Your task to perform on an android device: What's the weather going to be this weekend? Image 0: 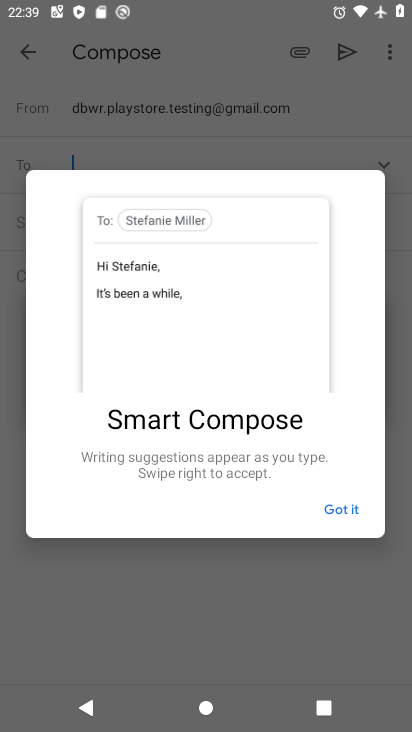
Step 0: press home button
Your task to perform on an android device: What's the weather going to be this weekend? Image 1: 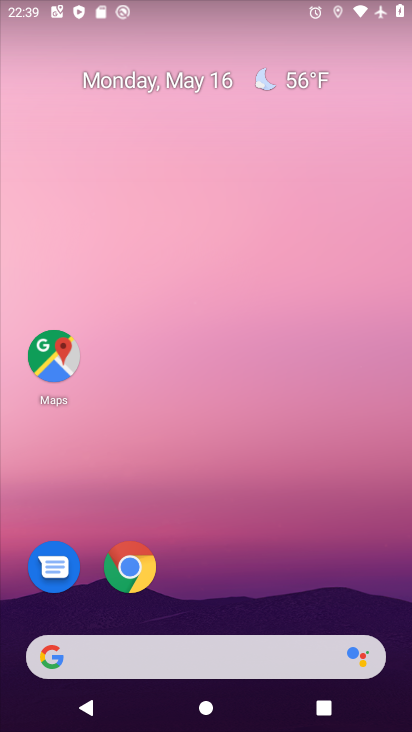
Step 1: drag from (261, 561) to (270, 199)
Your task to perform on an android device: What's the weather going to be this weekend? Image 2: 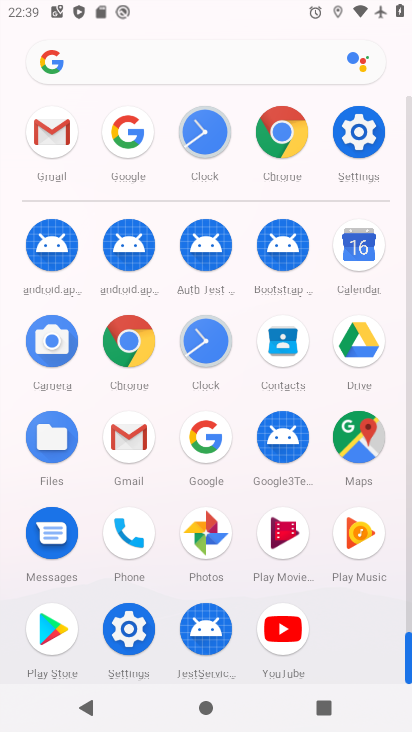
Step 2: click (350, 246)
Your task to perform on an android device: What's the weather going to be this weekend? Image 3: 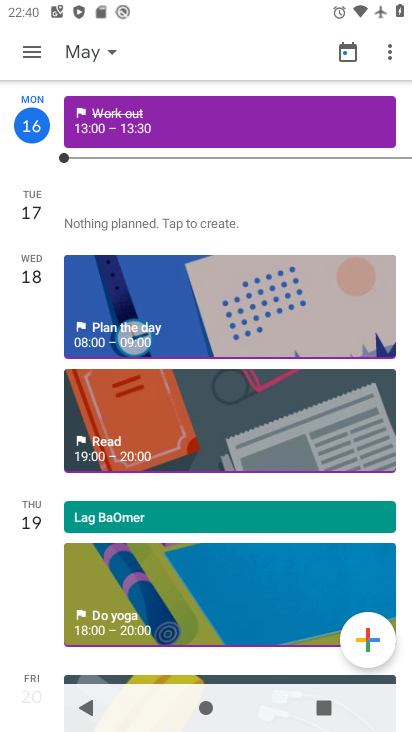
Step 3: click (25, 47)
Your task to perform on an android device: What's the weather going to be this weekend? Image 4: 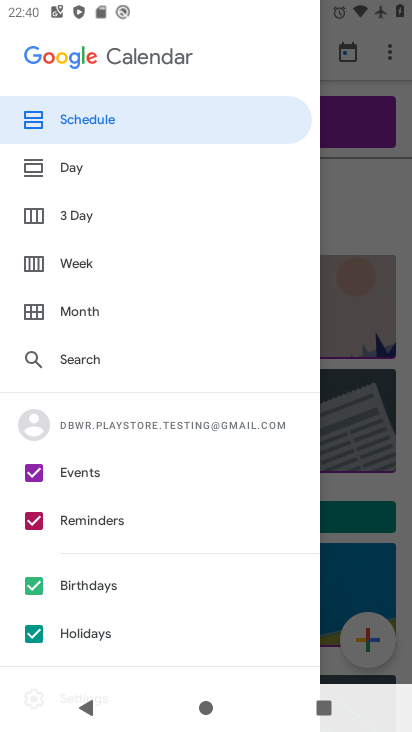
Step 4: press home button
Your task to perform on an android device: What's the weather going to be this weekend? Image 5: 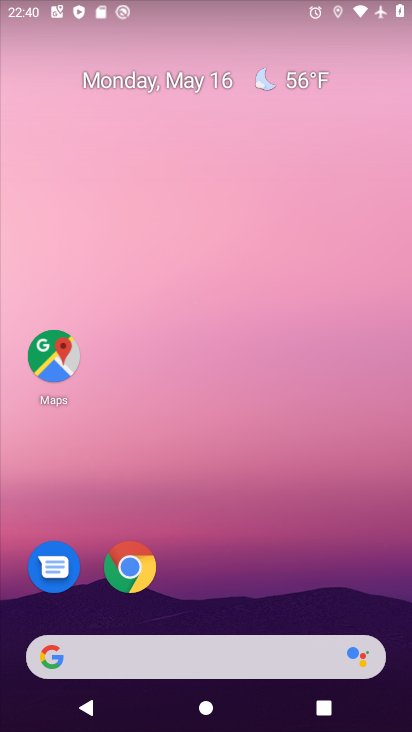
Step 5: click (123, 563)
Your task to perform on an android device: What's the weather going to be this weekend? Image 6: 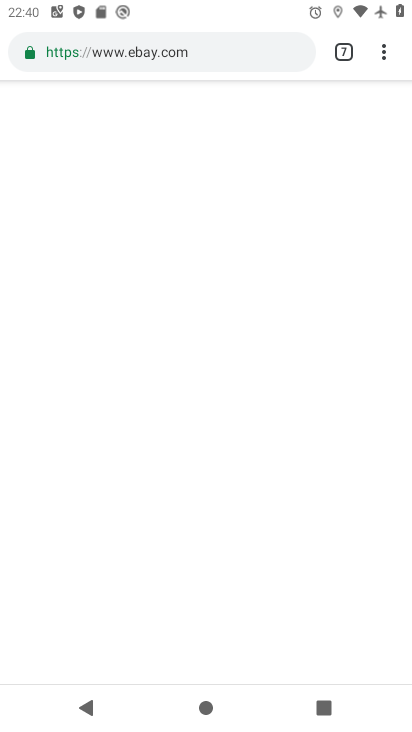
Step 6: click (375, 45)
Your task to perform on an android device: What's the weather going to be this weekend? Image 7: 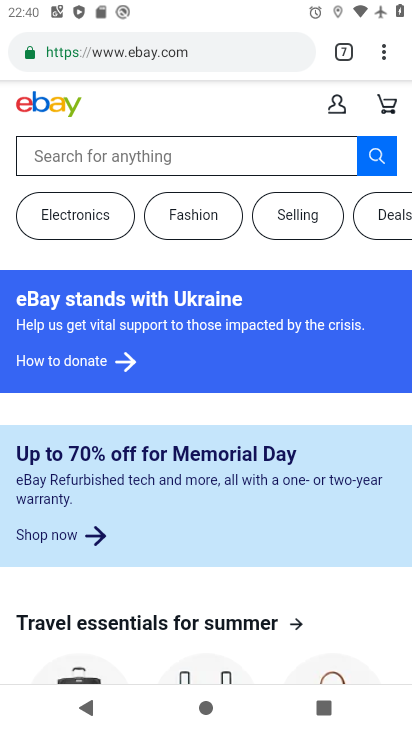
Step 7: click (383, 46)
Your task to perform on an android device: What's the weather going to be this weekend? Image 8: 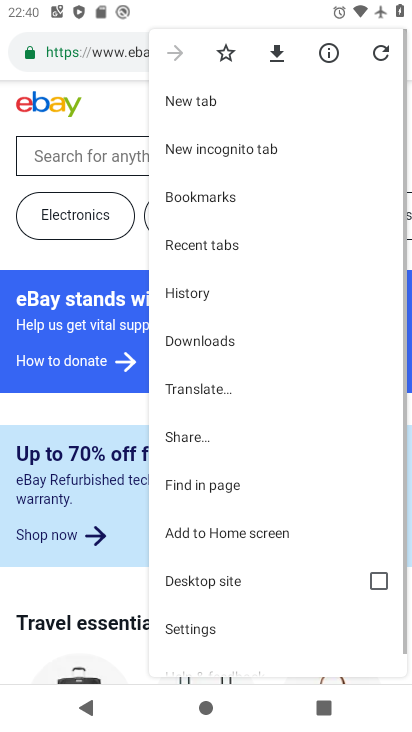
Step 8: click (237, 101)
Your task to perform on an android device: What's the weather going to be this weekend? Image 9: 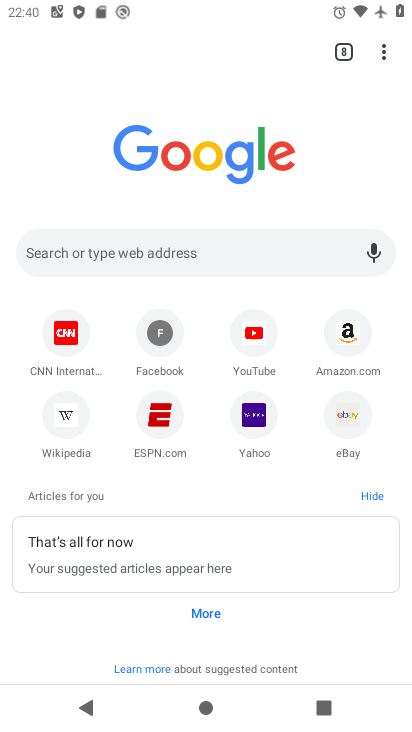
Step 9: click (135, 247)
Your task to perform on an android device: What's the weather going to be this weekend? Image 10: 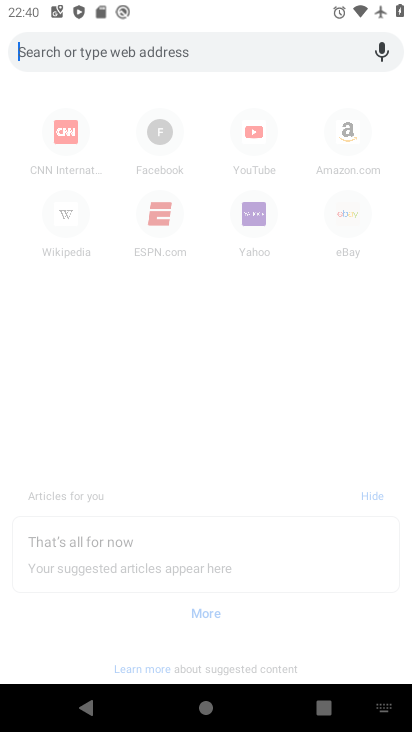
Step 10: type "What's the weather going to be this weekend?"
Your task to perform on an android device: What's the weather going to be this weekend? Image 11: 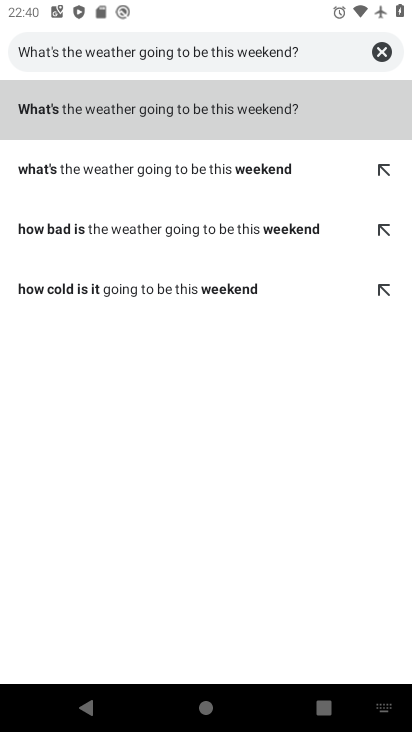
Step 11: click (276, 112)
Your task to perform on an android device: What's the weather going to be this weekend? Image 12: 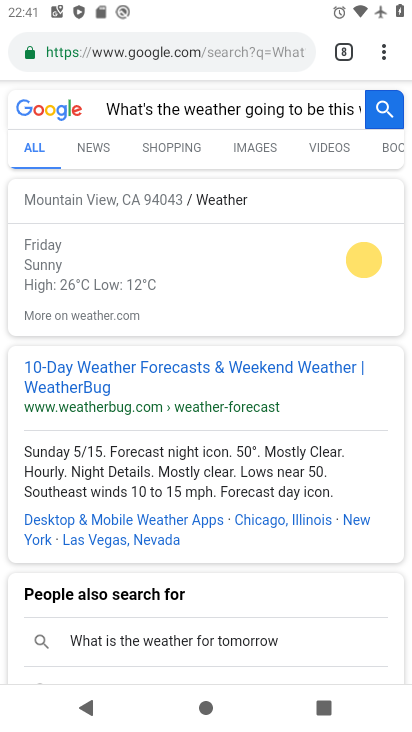
Step 12: task complete